Your task to perform on an android device: install app "PlayWell" Image 0: 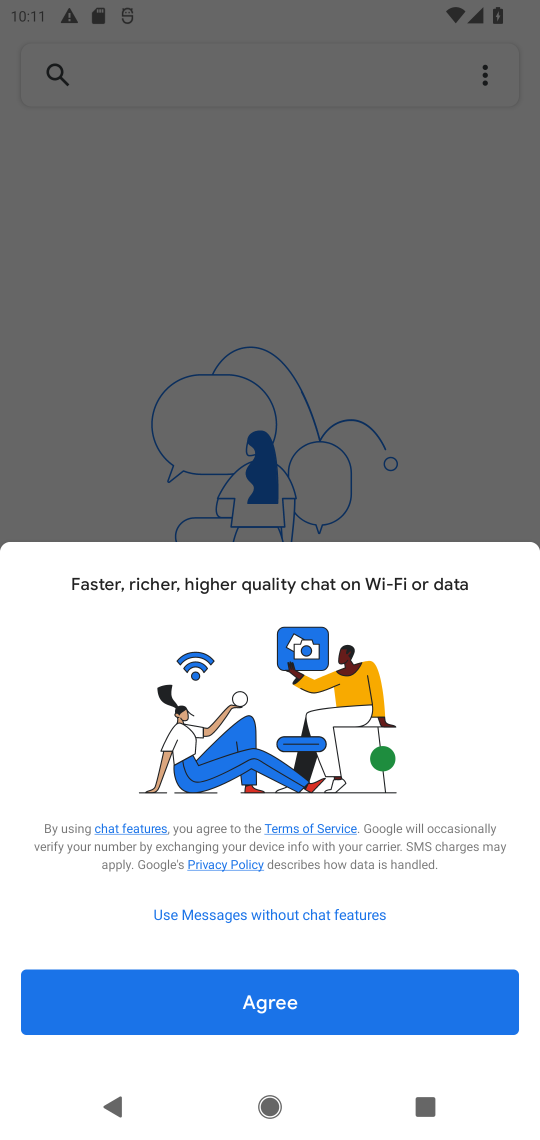
Step 0: press home button
Your task to perform on an android device: install app "PlayWell" Image 1: 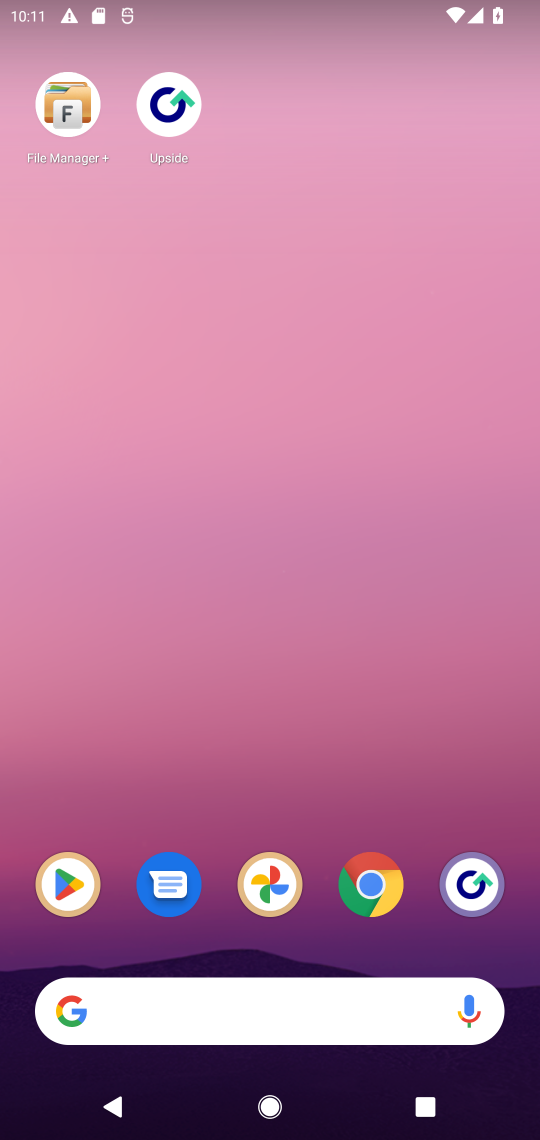
Step 1: click (56, 870)
Your task to perform on an android device: install app "PlayWell" Image 2: 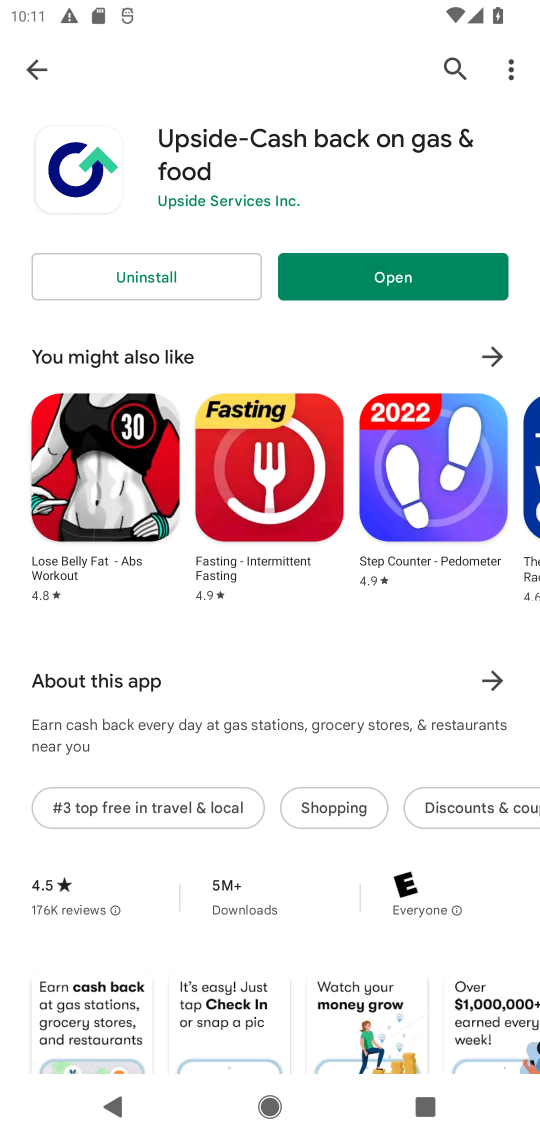
Step 2: click (452, 61)
Your task to perform on an android device: install app "PlayWell" Image 3: 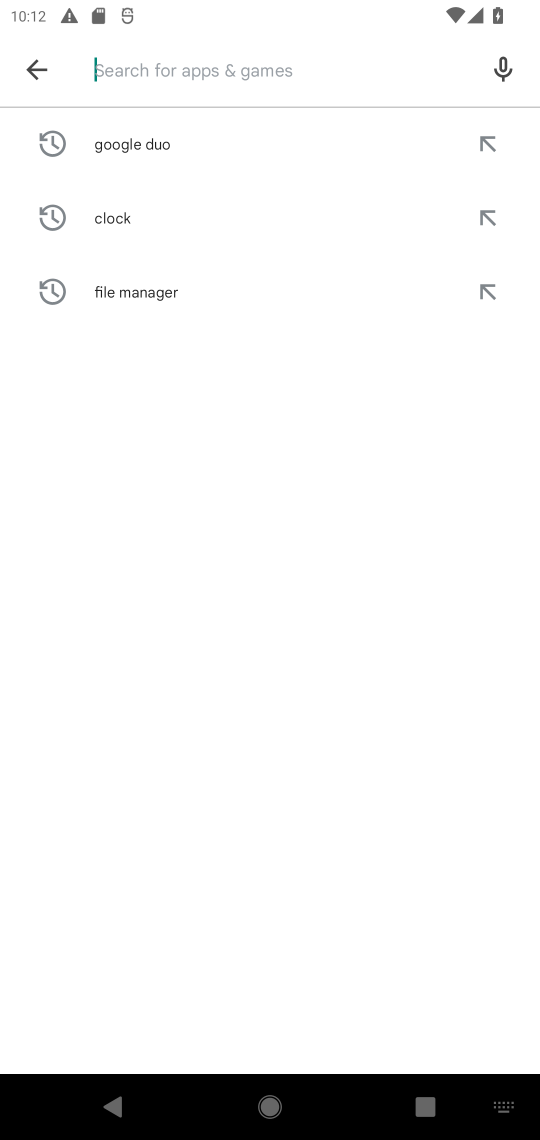
Step 3: type "playwell"
Your task to perform on an android device: install app "PlayWell" Image 4: 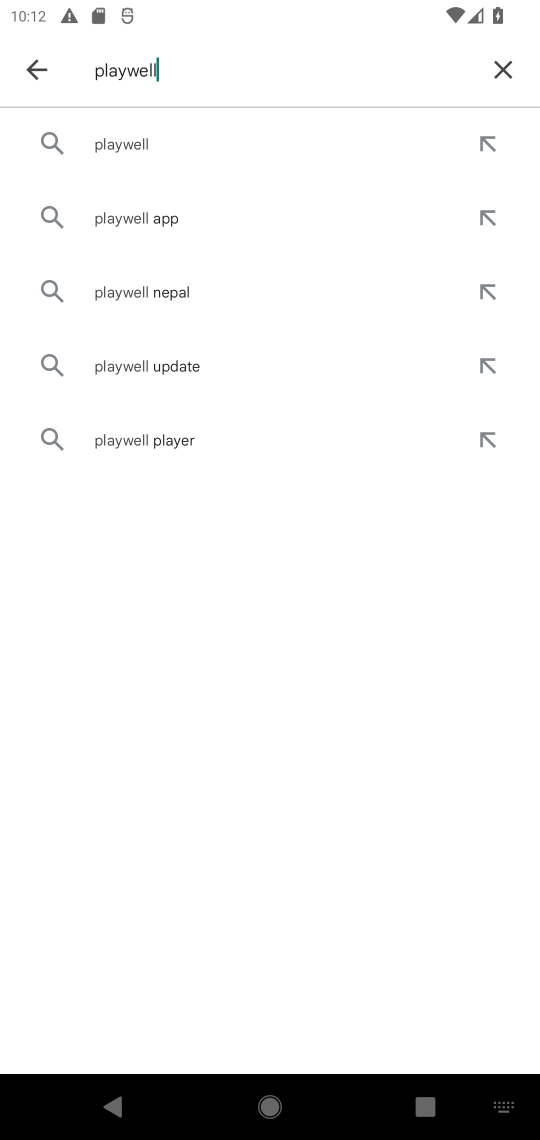
Step 4: click (150, 149)
Your task to perform on an android device: install app "PlayWell" Image 5: 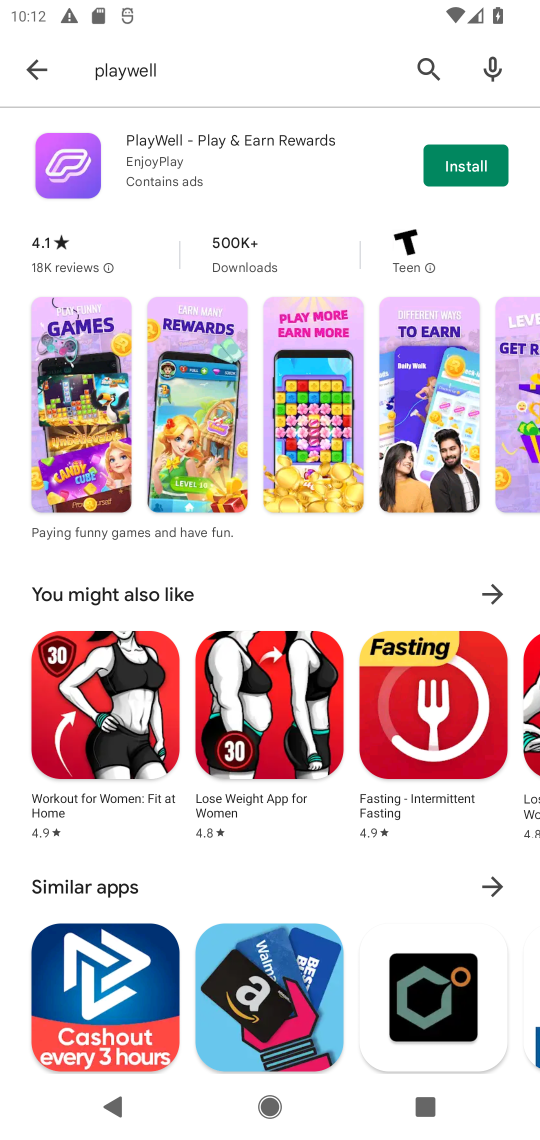
Step 5: click (173, 132)
Your task to perform on an android device: install app "PlayWell" Image 6: 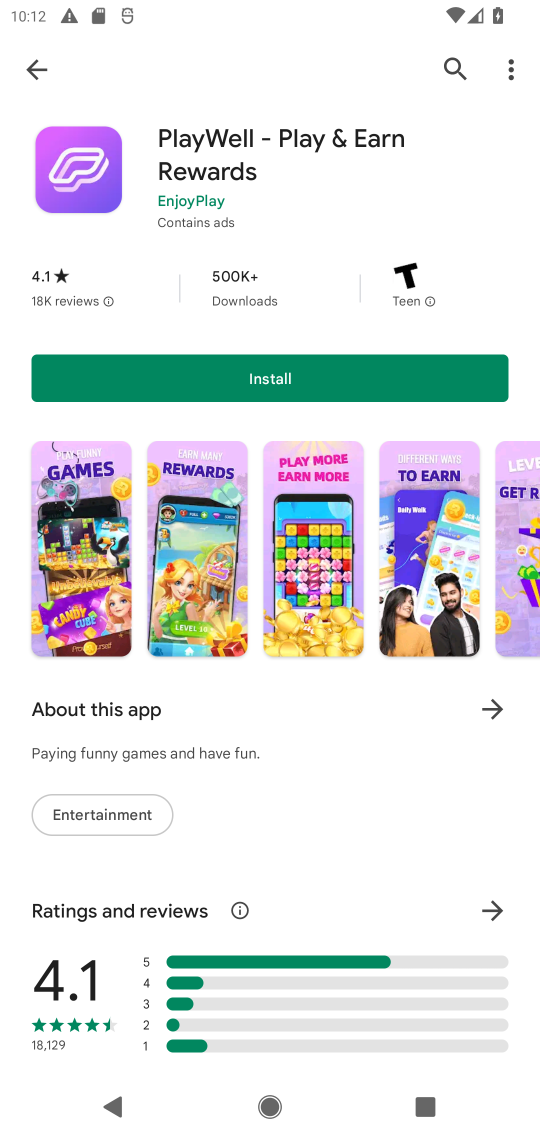
Step 6: click (283, 386)
Your task to perform on an android device: install app "PlayWell" Image 7: 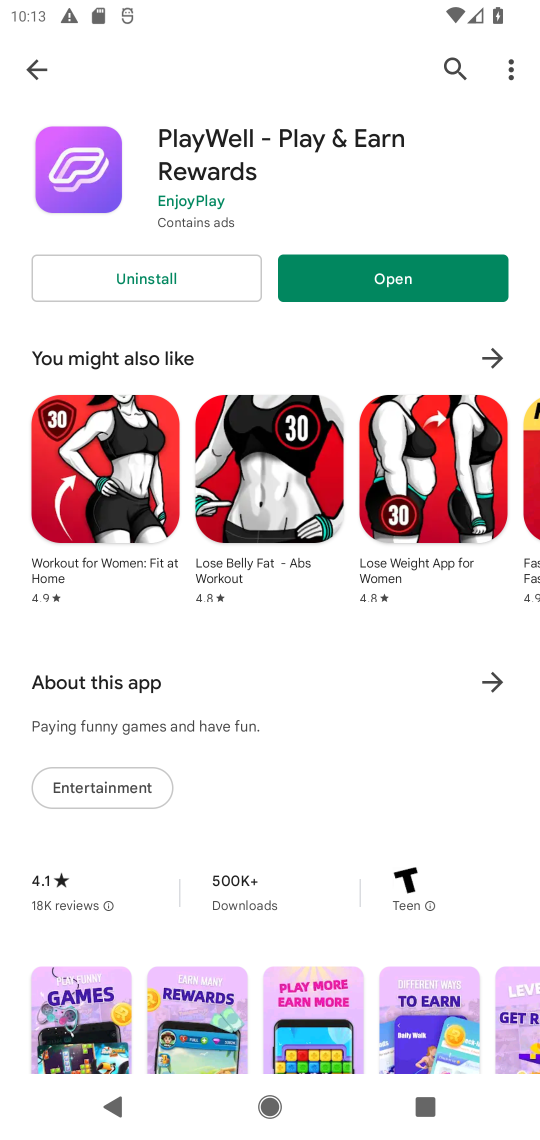
Step 7: task complete